Your task to perform on an android device: delete the emails in spam in the gmail app Image 0: 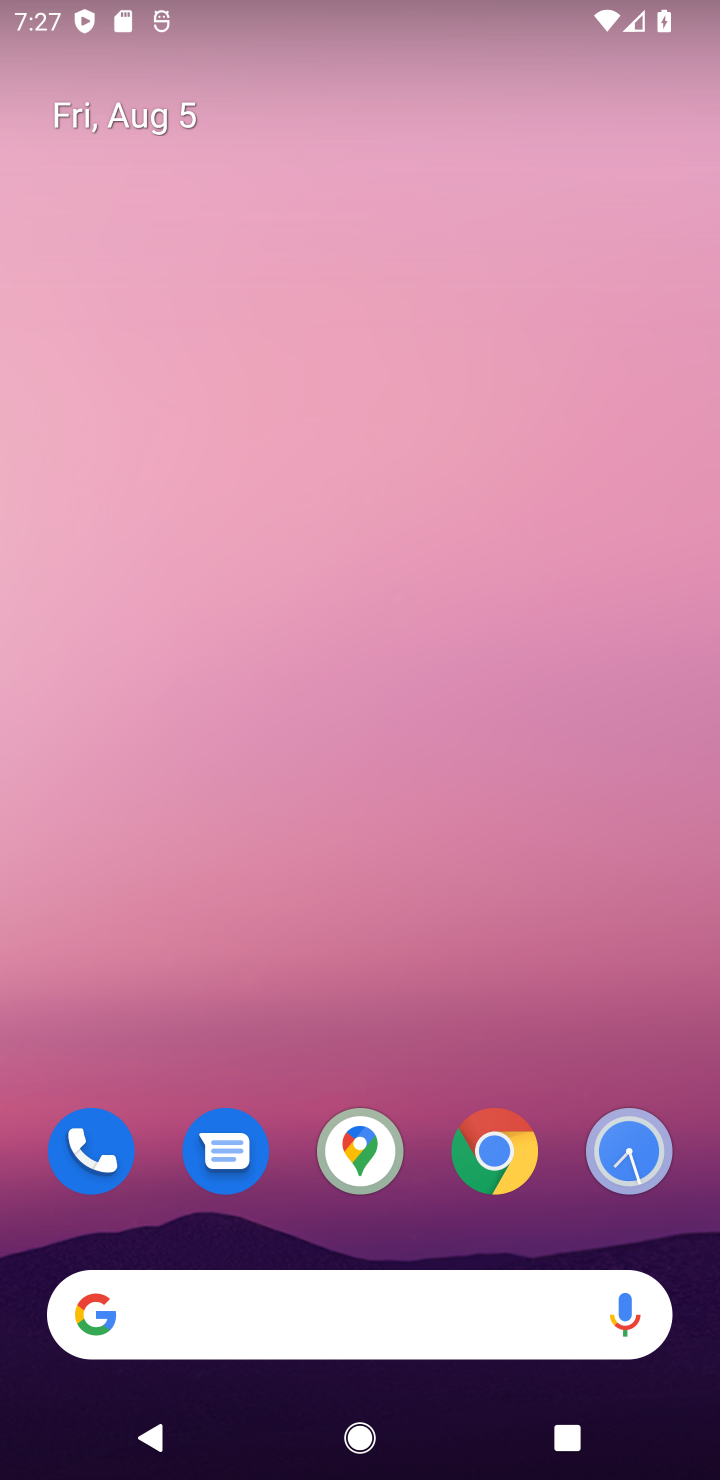
Step 0: drag from (359, 1251) to (350, 70)
Your task to perform on an android device: delete the emails in spam in the gmail app Image 1: 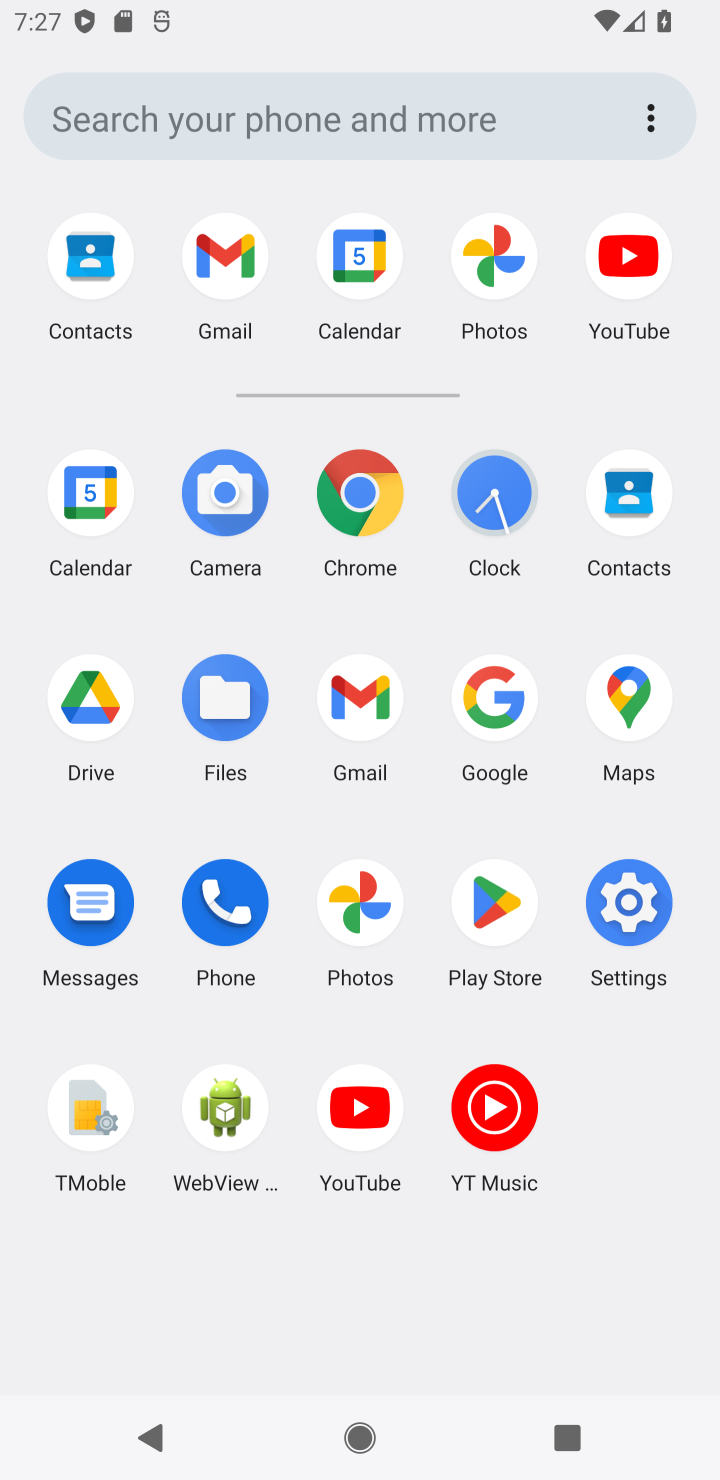
Step 1: click (381, 705)
Your task to perform on an android device: delete the emails in spam in the gmail app Image 2: 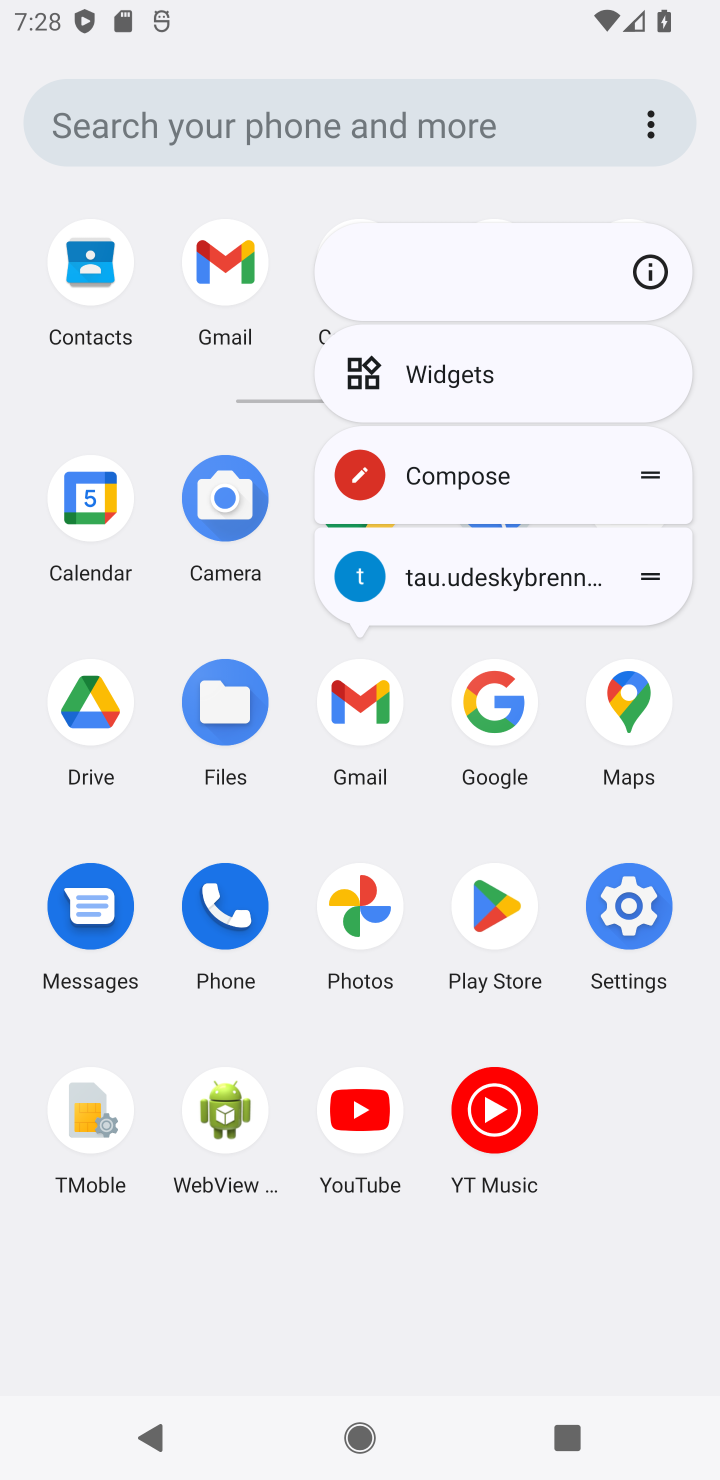
Step 2: click (351, 709)
Your task to perform on an android device: delete the emails in spam in the gmail app Image 3: 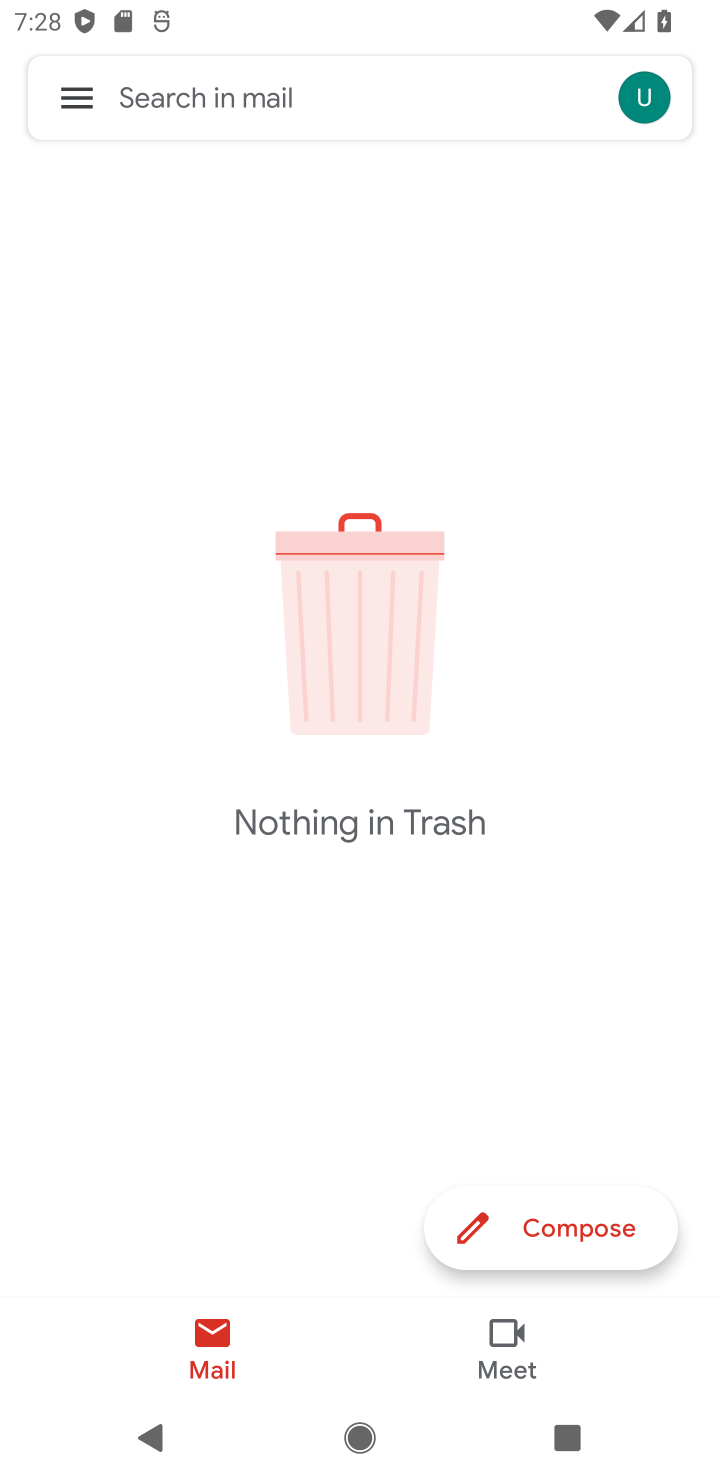
Step 3: click (72, 87)
Your task to perform on an android device: delete the emails in spam in the gmail app Image 4: 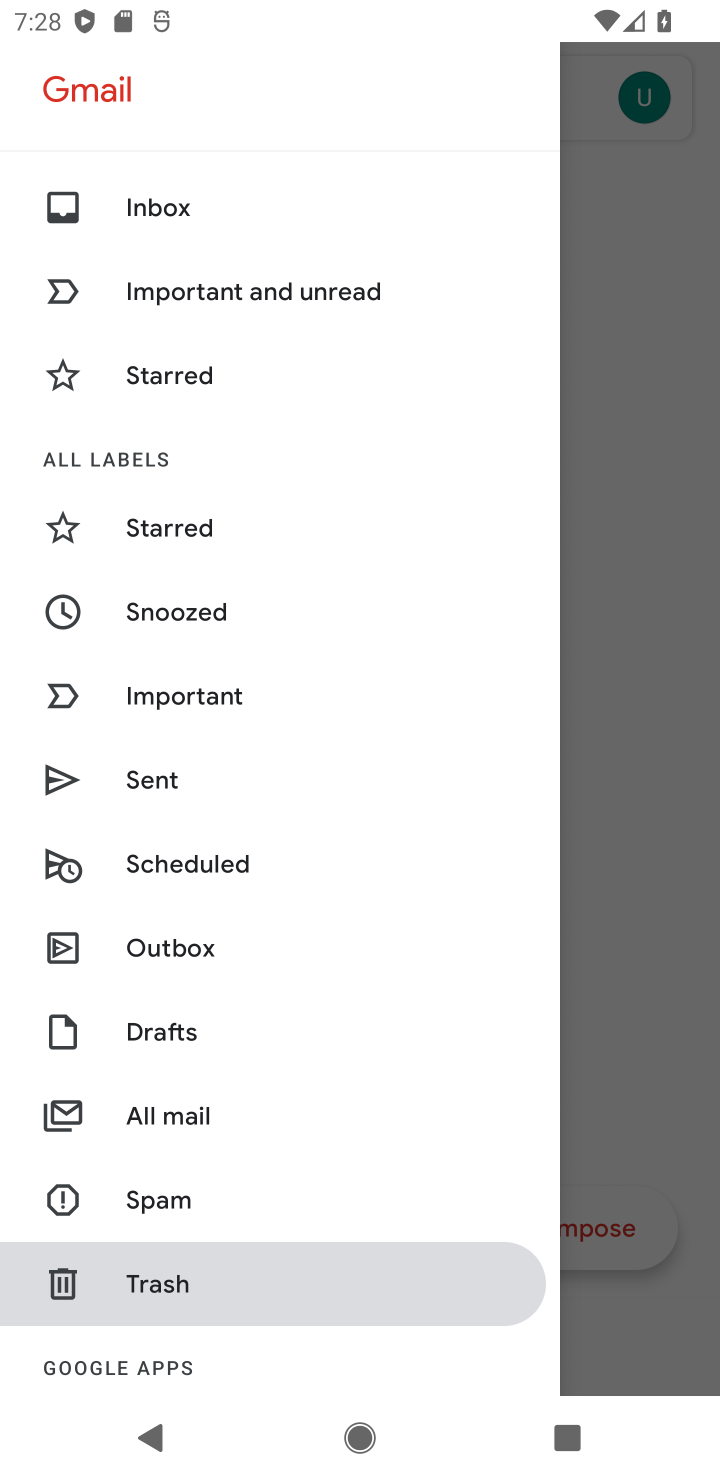
Step 4: click (167, 1193)
Your task to perform on an android device: delete the emails in spam in the gmail app Image 5: 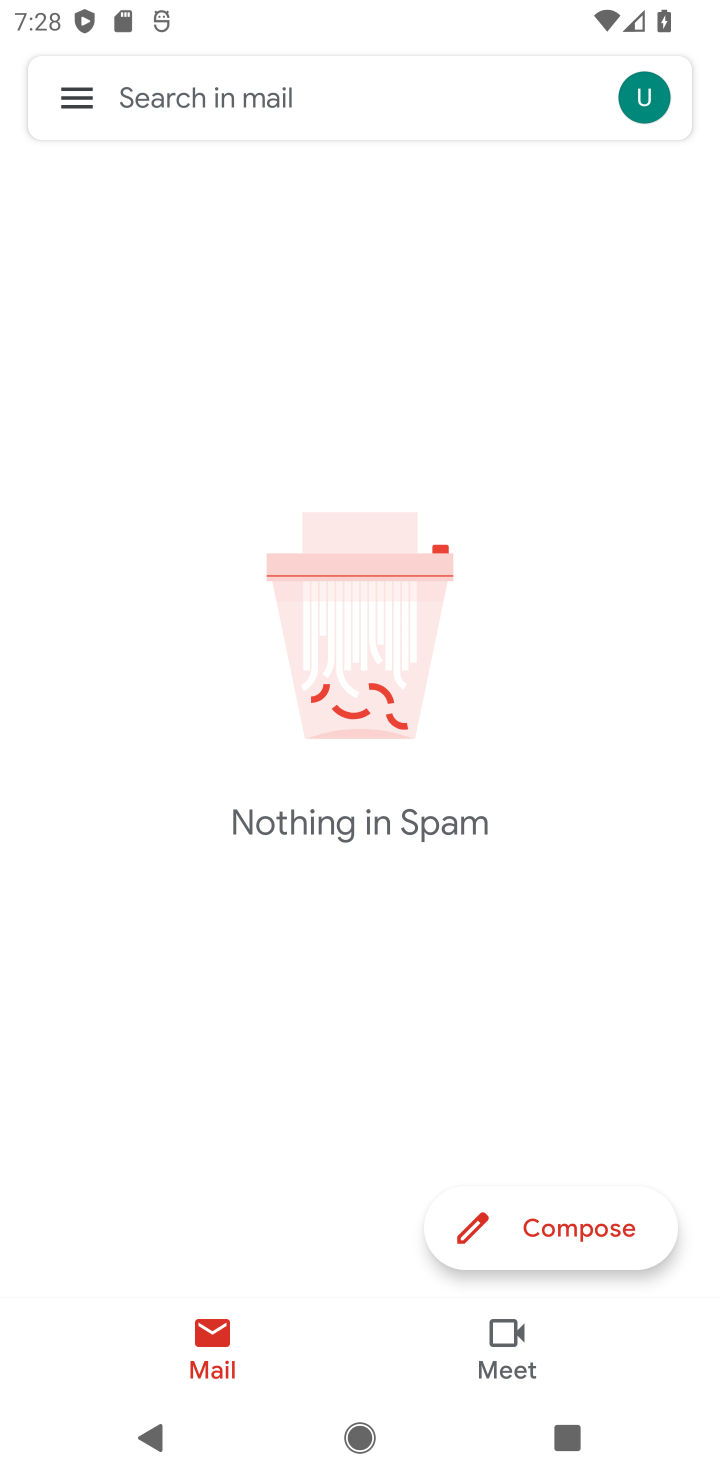
Step 5: task complete